Your task to perform on an android device: Open my contact list Image 0: 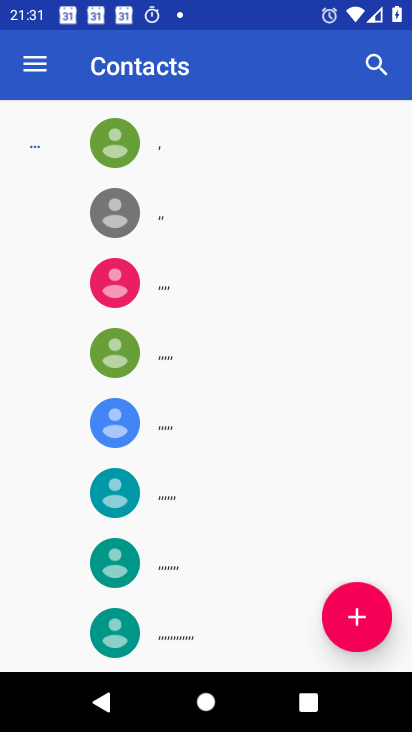
Step 0: press home button
Your task to perform on an android device: Open my contact list Image 1: 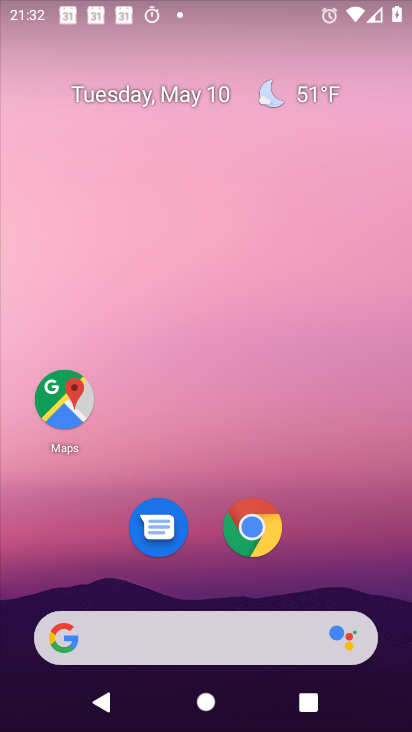
Step 1: drag from (231, 603) to (78, 32)
Your task to perform on an android device: Open my contact list Image 2: 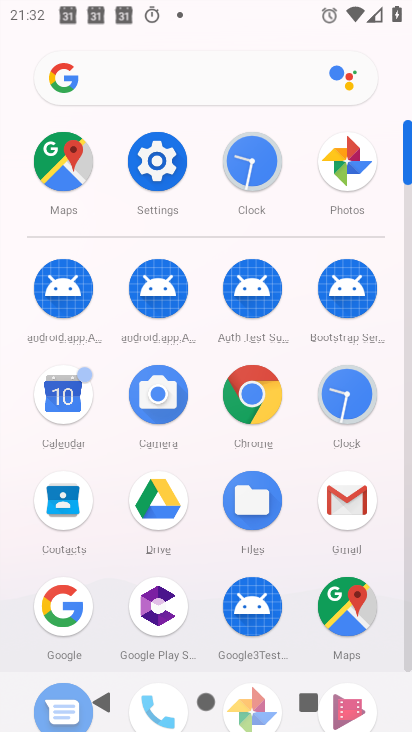
Step 2: drag from (113, 597) to (55, 119)
Your task to perform on an android device: Open my contact list Image 3: 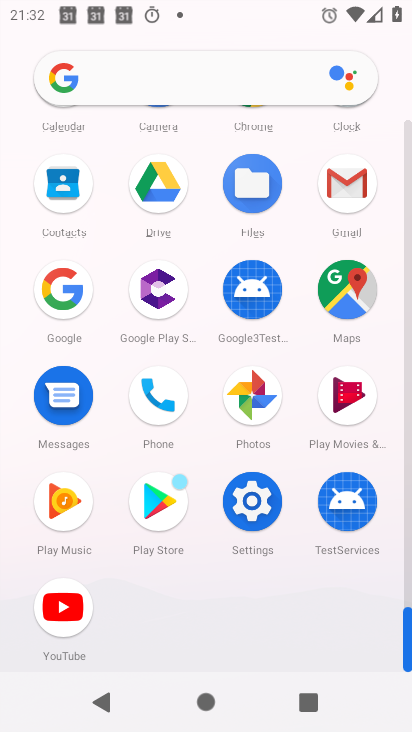
Step 3: click (152, 392)
Your task to perform on an android device: Open my contact list Image 4: 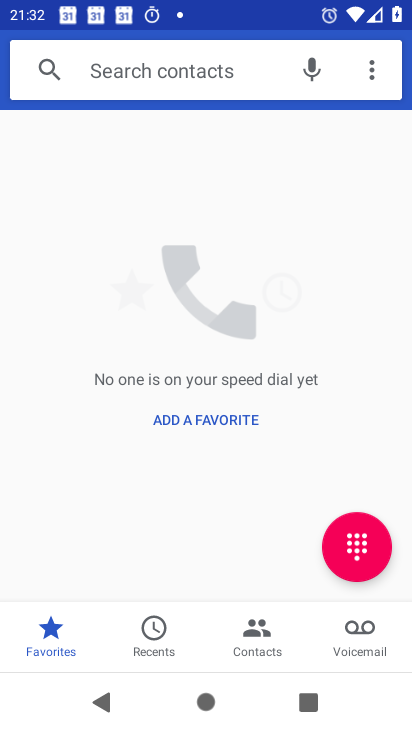
Step 4: click (250, 645)
Your task to perform on an android device: Open my contact list Image 5: 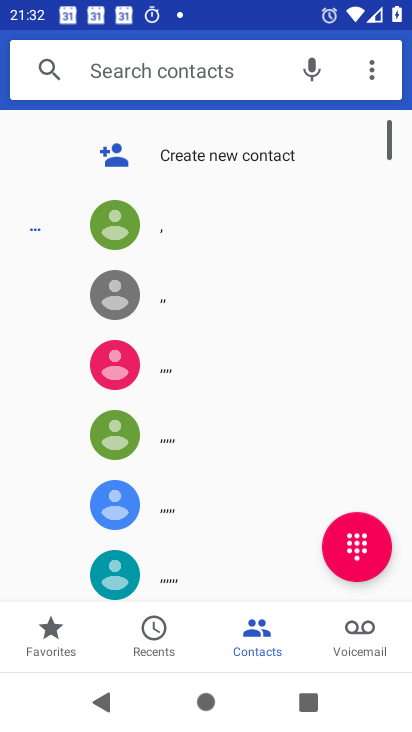
Step 5: task complete